Your task to perform on an android device: empty trash in google photos Image 0: 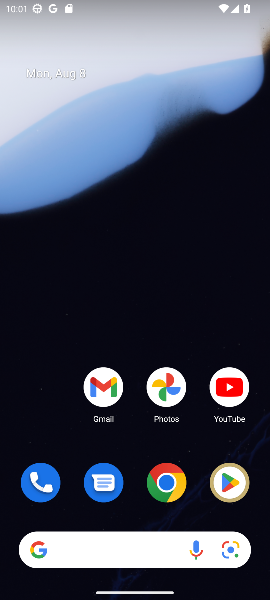
Step 0: click (163, 392)
Your task to perform on an android device: empty trash in google photos Image 1: 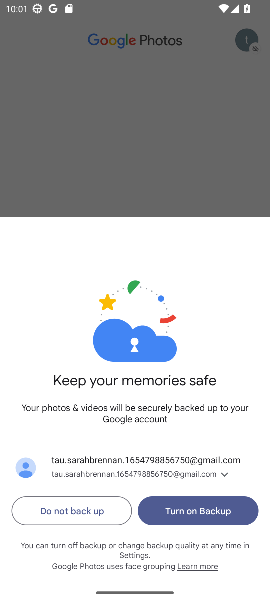
Step 1: click (50, 506)
Your task to perform on an android device: empty trash in google photos Image 2: 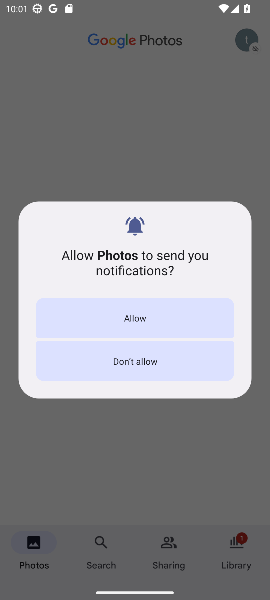
Step 2: click (145, 317)
Your task to perform on an android device: empty trash in google photos Image 3: 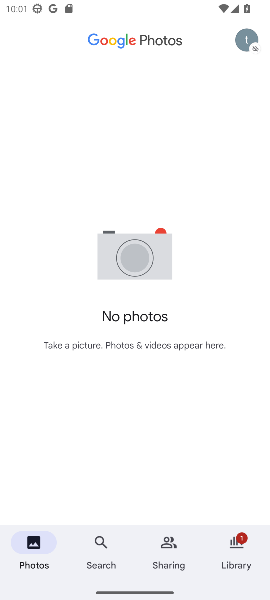
Step 3: click (238, 557)
Your task to perform on an android device: empty trash in google photos Image 4: 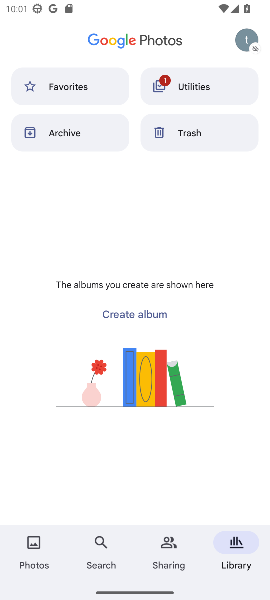
Step 4: click (181, 127)
Your task to perform on an android device: empty trash in google photos Image 5: 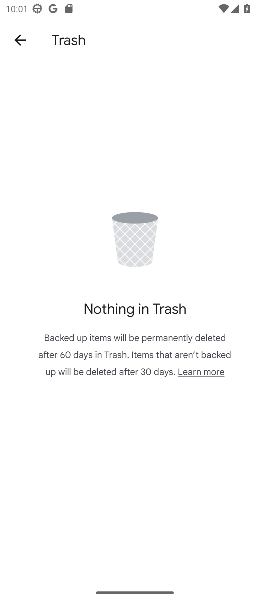
Step 5: task complete